Your task to perform on an android device: Go to network settings Image 0: 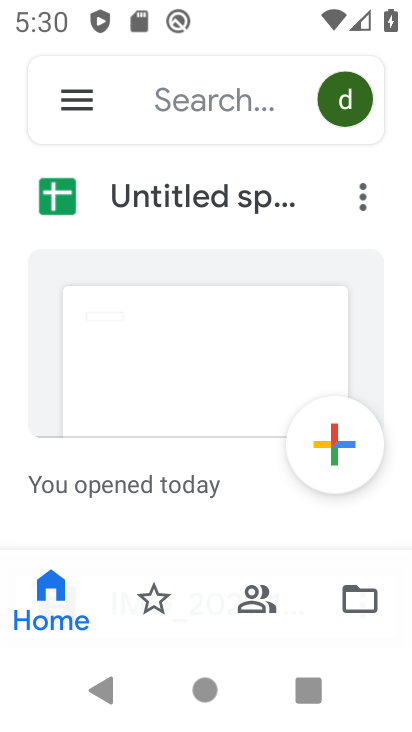
Step 0: press home button
Your task to perform on an android device: Go to network settings Image 1: 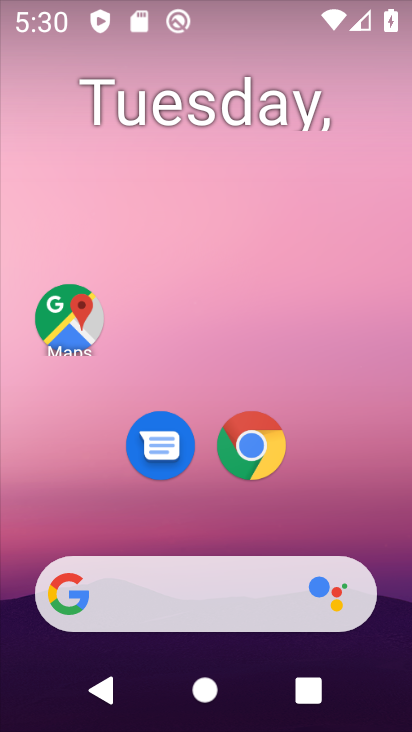
Step 1: drag from (323, 520) to (352, 87)
Your task to perform on an android device: Go to network settings Image 2: 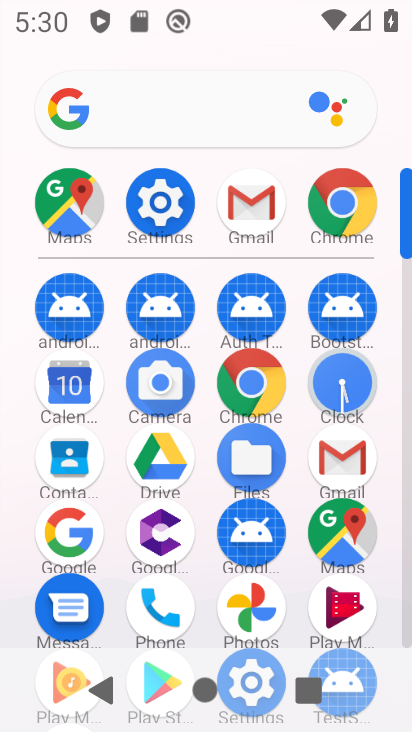
Step 2: click (155, 195)
Your task to perform on an android device: Go to network settings Image 3: 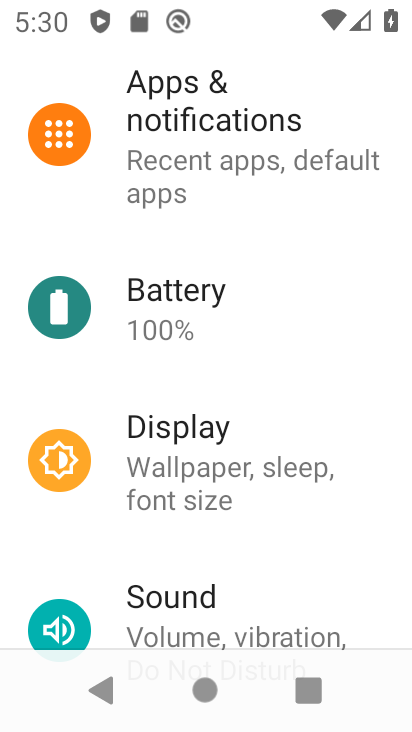
Step 3: drag from (323, 275) to (321, 514)
Your task to perform on an android device: Go to network settings Image 4: 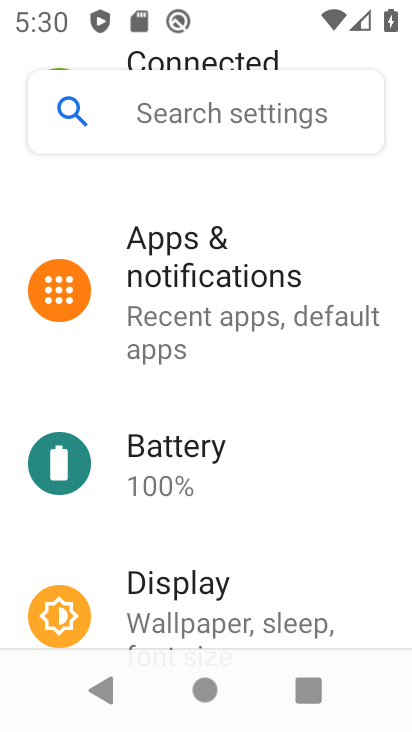
Step 4: drag from (324, 220) to (310, 559)
Your task to perform on an android device: Go to network settings Image 5: 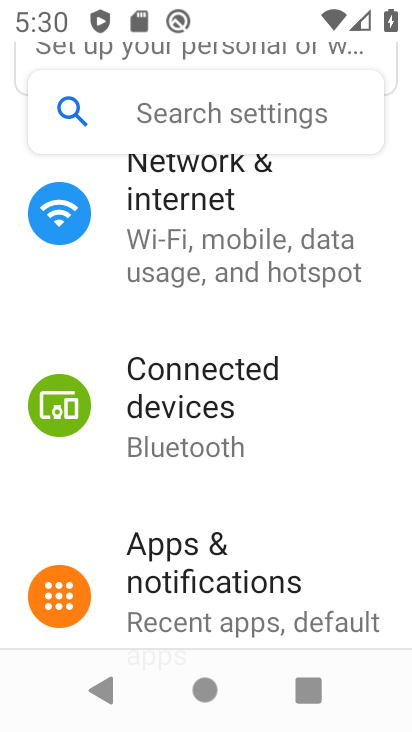
Step 5: click (222, 195)
Your task to perform on an android device: Go to network settings Image 6: 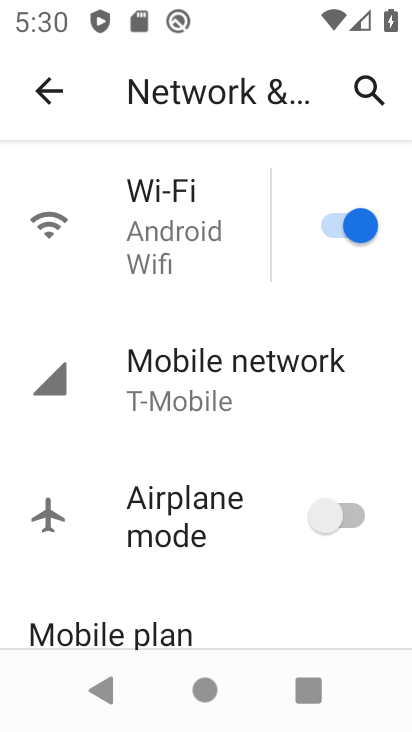
Step 6: task complete